Your task to perform on an android device: change keyboard looks Image 0: 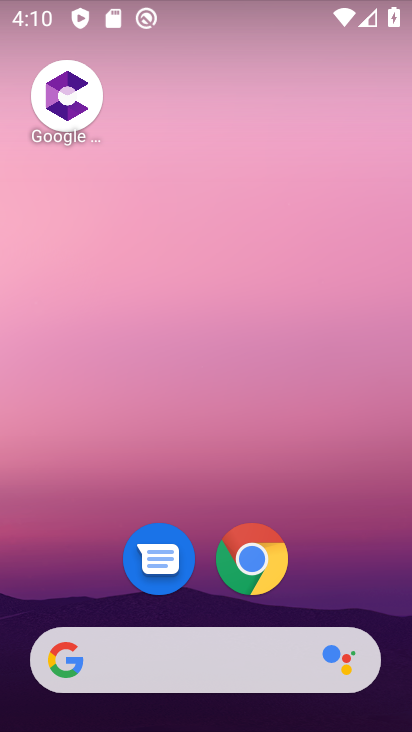
Step 0: drag from (347, 558) to (312, 202)
Your task to perform on an android device: change keyboard looks Image 1: 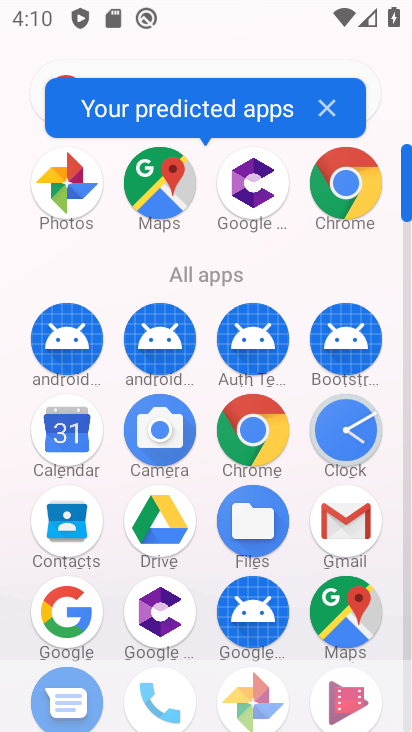
Step 1: drag from (206, 640) to (204, 408)
Your task to perform on an android device: change keyboard looks Image 2: 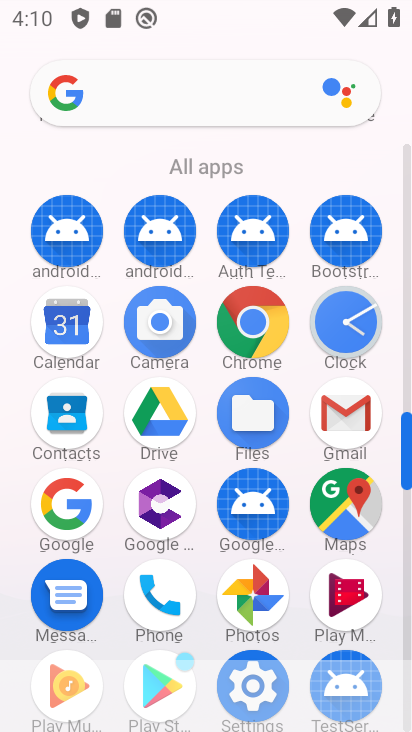
Step 2: drag from (199, 627) to (175, 281)
Your task to perform on an android device: change keyboard looks Image 3: 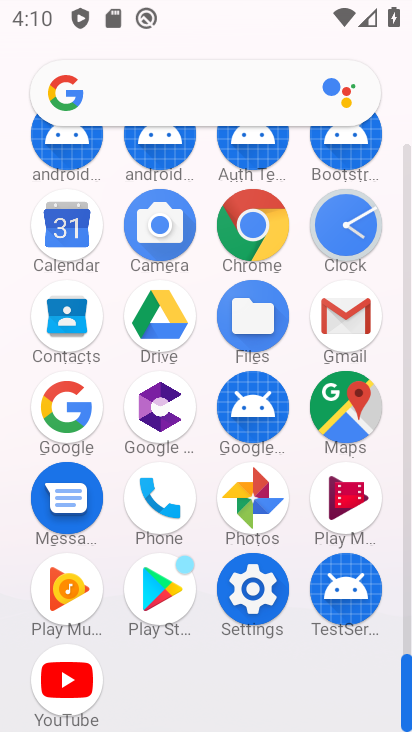
Step 3: click (244, 599)
Your task to perform on an android device: change keyboard looks Image 4: 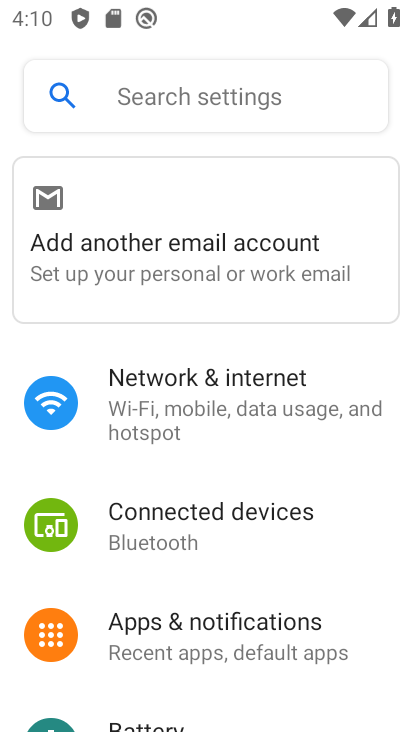
Step 4: drag from (270, 607) to (255, 397)
Your task to perform on an android device: change keyboard looks Image 5: 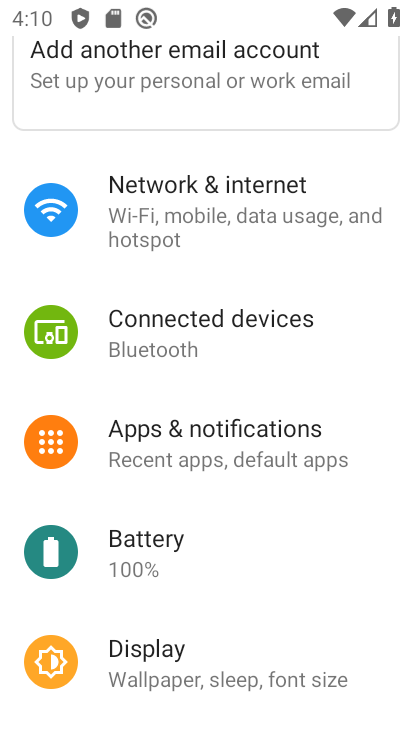
Step 5: drag from (233, 585) to (224, 253)
Your task to perform on an android device: change keyboard looks Image 6: 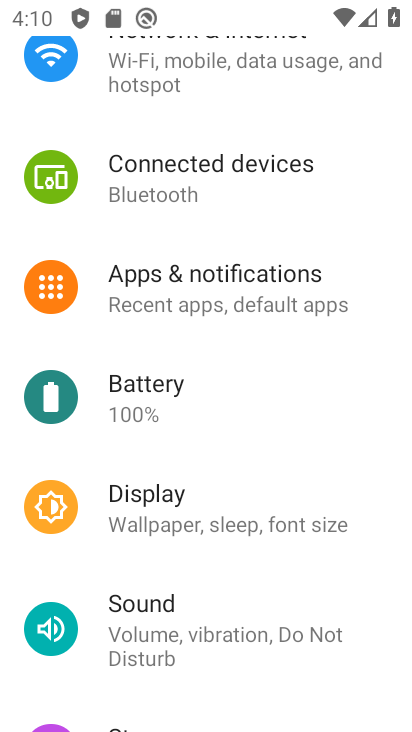
Step 6: drag from (226, 610) to (303, 185)
Your task to perform on an android device: change keyboard looks Image 7: 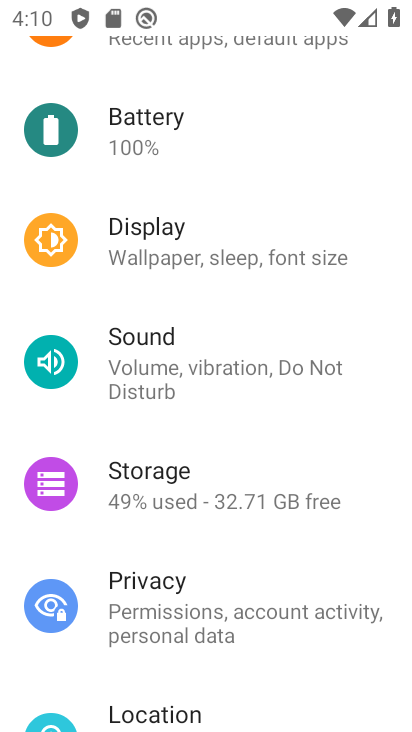
Step 7: drag from (268, 565) to (312, 133)
Your task to perform on an android device: change keyboard looks Image 8: 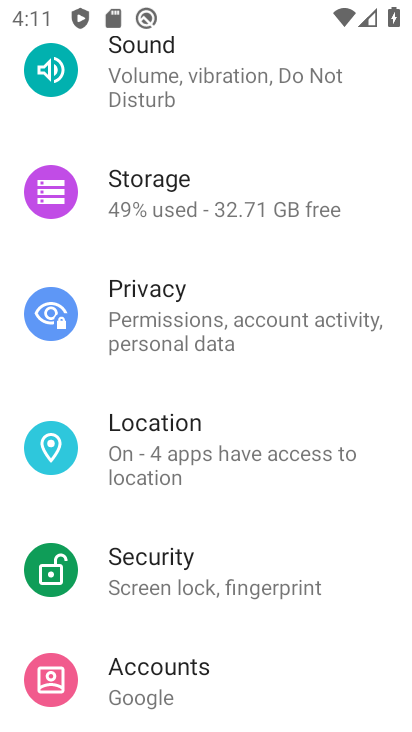
Step 8: drag from (251, 562) to (273, 206)
Your task to perform on an android device: change keyboard looks Image 9: 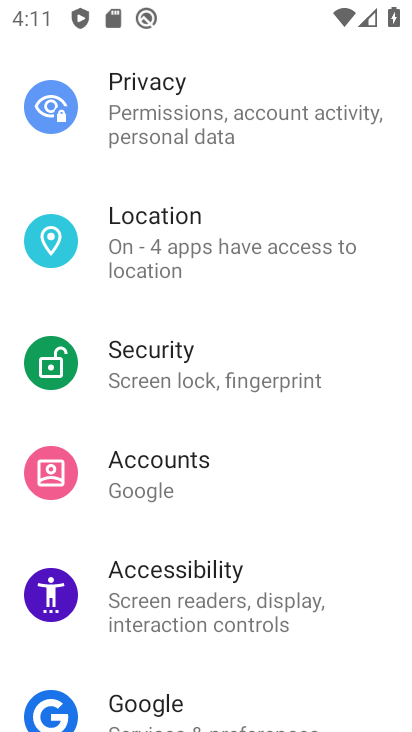
Step 9: drag from (251, 679) to (266, 337)
Your task to perform on an android device: change keyboard looks Image 10: 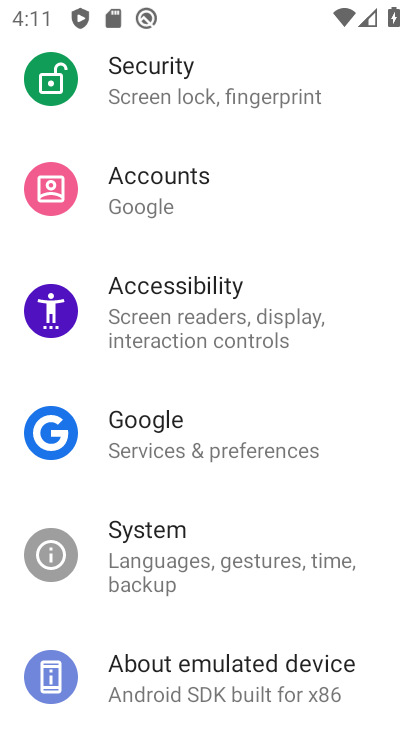
Step 10: click (242, 675)
Your task to perform on an android device: change keyboard looks Image 11: 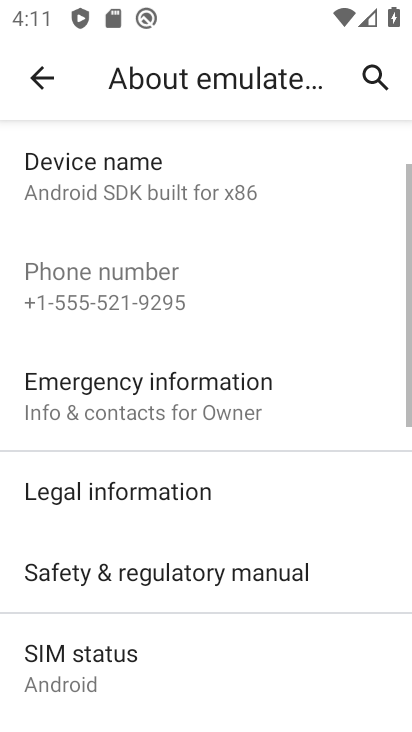
Step 11: click (37, 72)
Your task to perform on an android device: change keyboard looks Image 12: 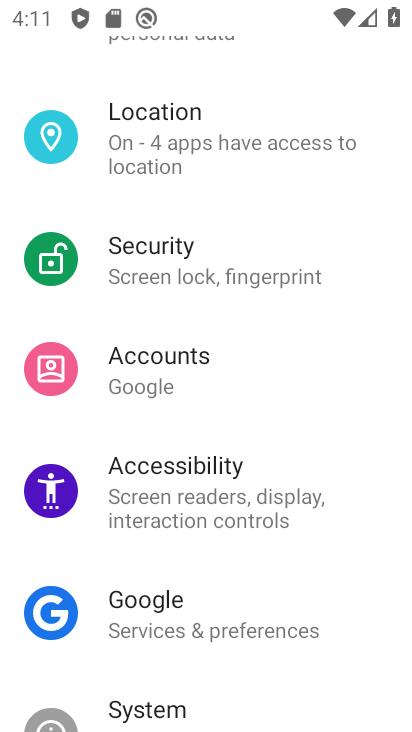
Step 12: drag from (193, 701) to (207, 405)
Your task to perform on an android device: change keyboard looks Image 13: 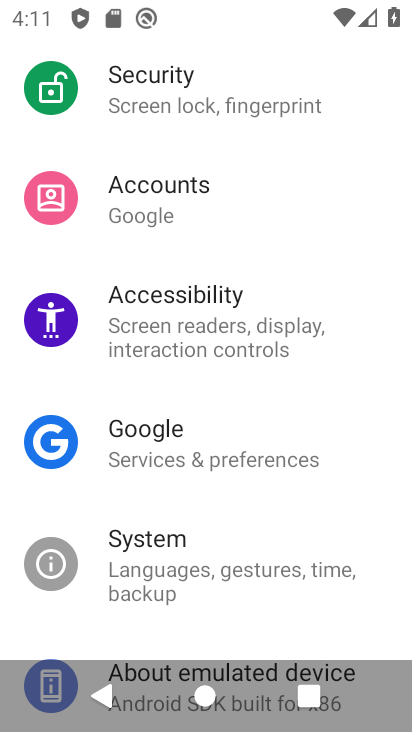
Step 13: click (181, 555)
Your task to perform on an android device: change keyboard looks Image 14: 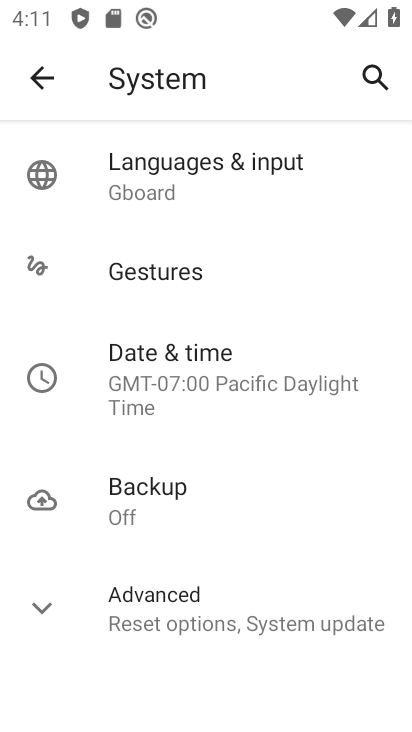
Step 14: click (207, 178)
Your task to perform on an android device: change keyboard looks Image 15: 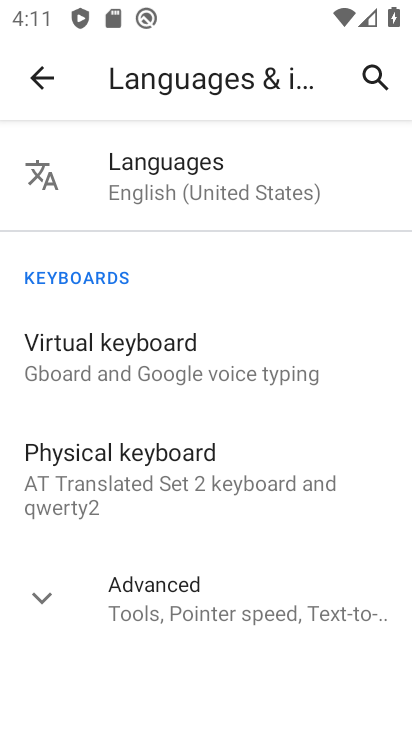
Step 15: click (111, 373)
Your task to perform on an android device: change keyboard looks Image 16: 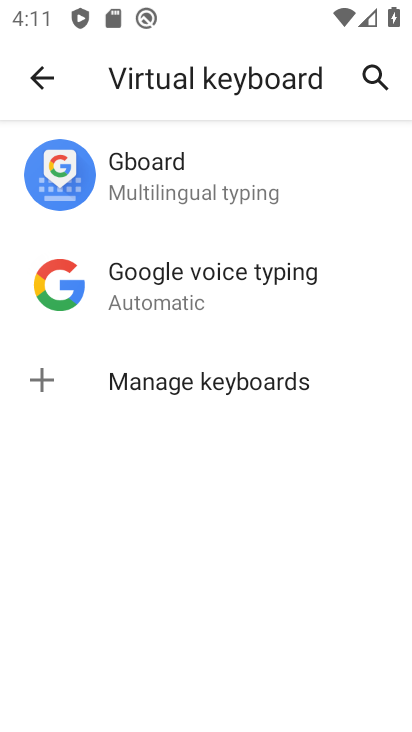
Step 16: click (169, 185)
Your task to perform on an android device: change keyboard looks Image 17: 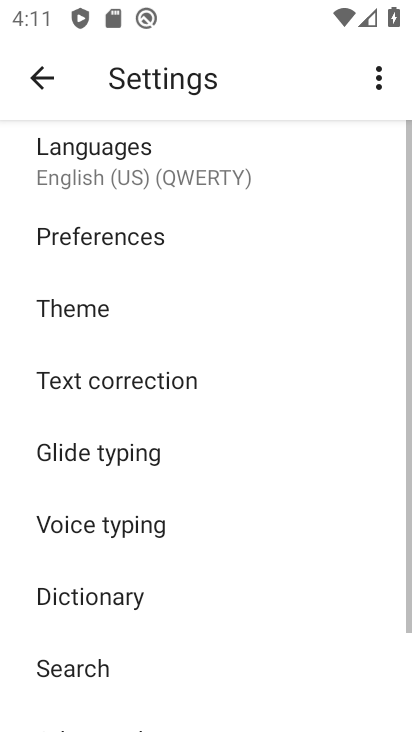
Step 17: click (121, 306)
Your task to perform on an android device: change keyboard looks Image 18: 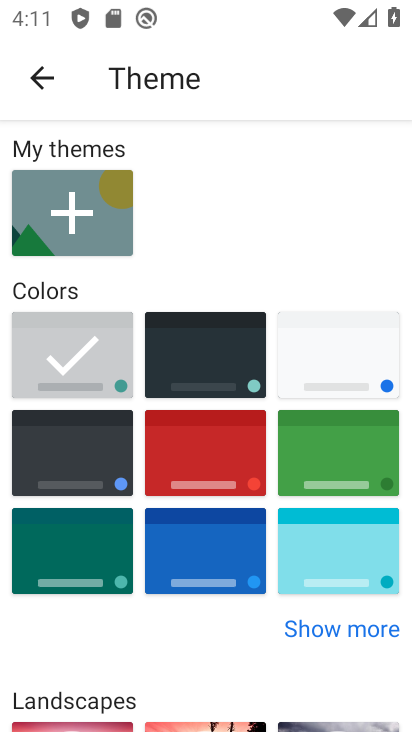
Step 18: click (248, 346)
Your task to perform on an android device: change keyboard looks Image 19: 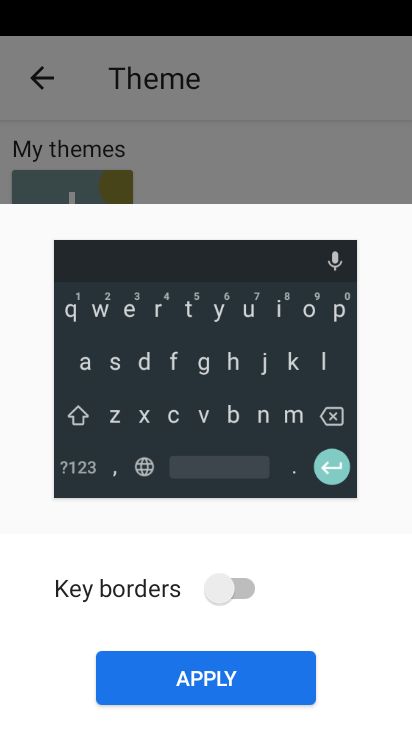
Step 19: click (242, 591)
Your task to perform on an android device: change keyboard looks Image 20: 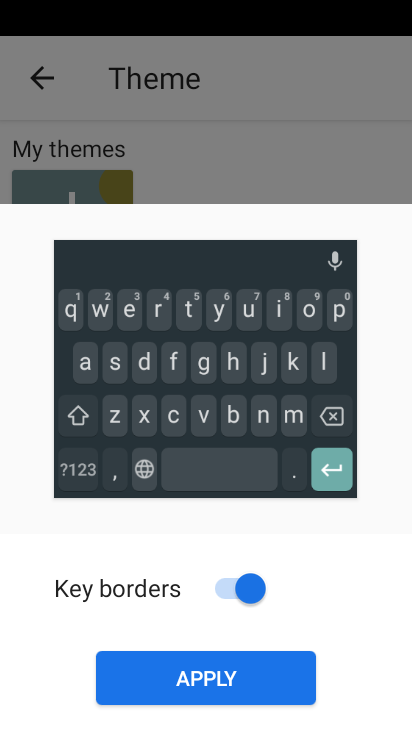
Step 20: click (248, 670)
Your task to perform on an android device: change keyboard looks Image 21: 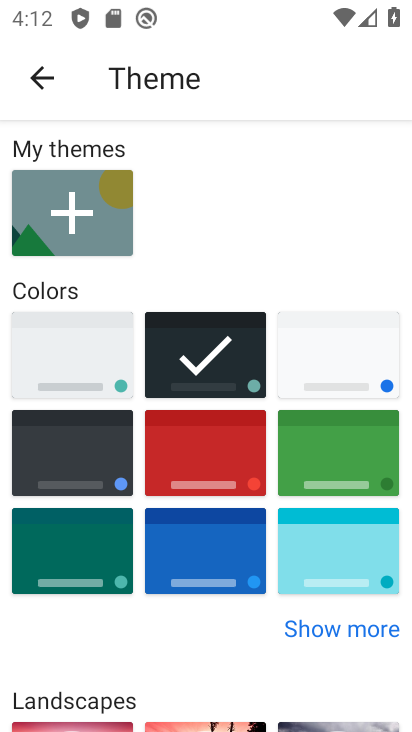
Step 21: task complete